Your task to perform on an android device: open app "Cash App" Image 0: 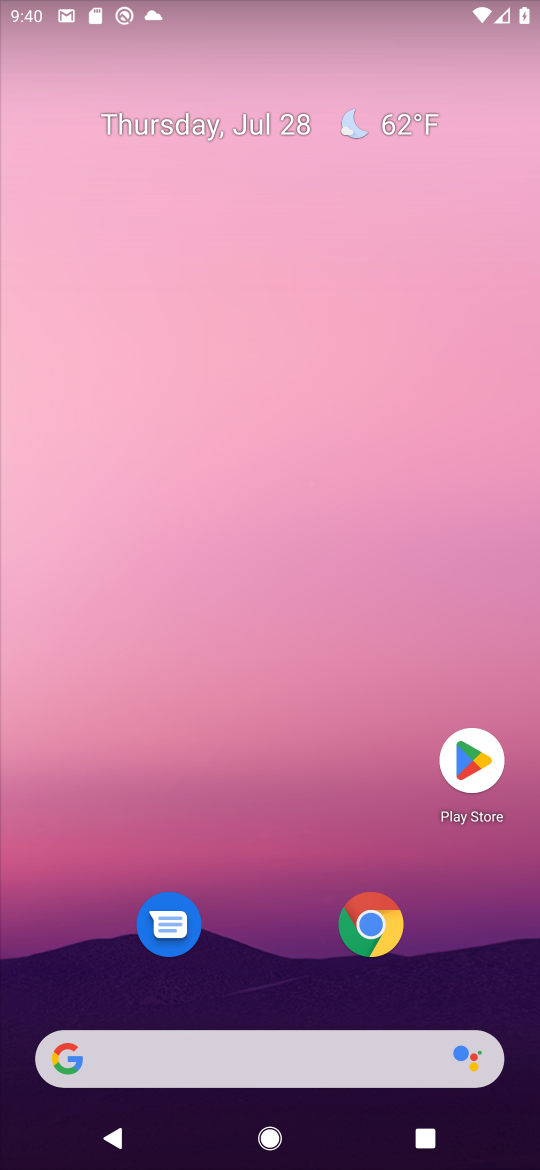
Step 0: press home button
Your task to perform on an android device: open app "Cash App" Image 1: 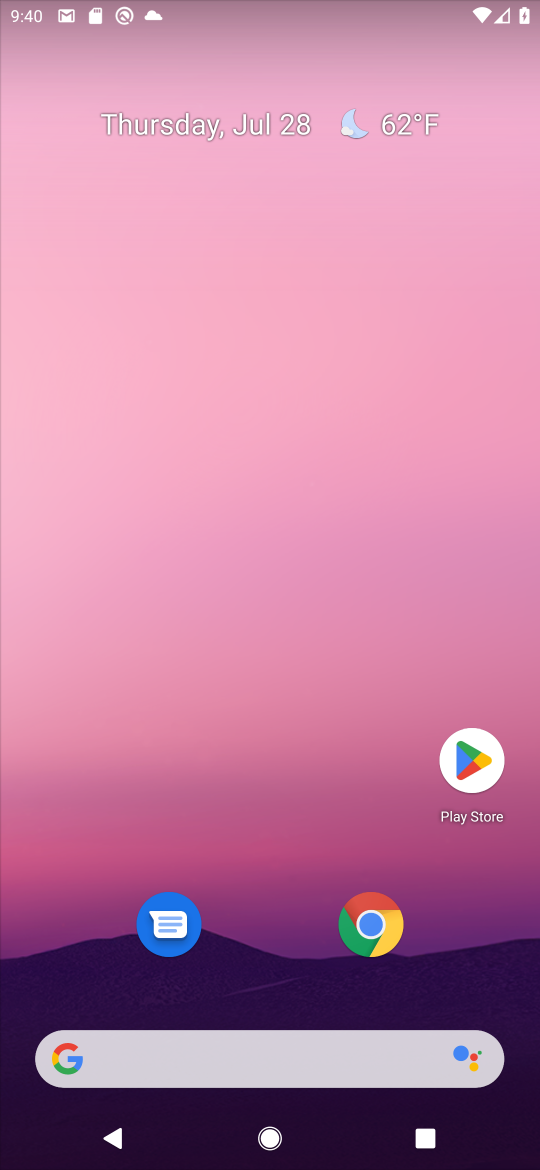
Step 1: click (470, 765)
Your task to perform on an android device: open app "Cash App" Image 2: 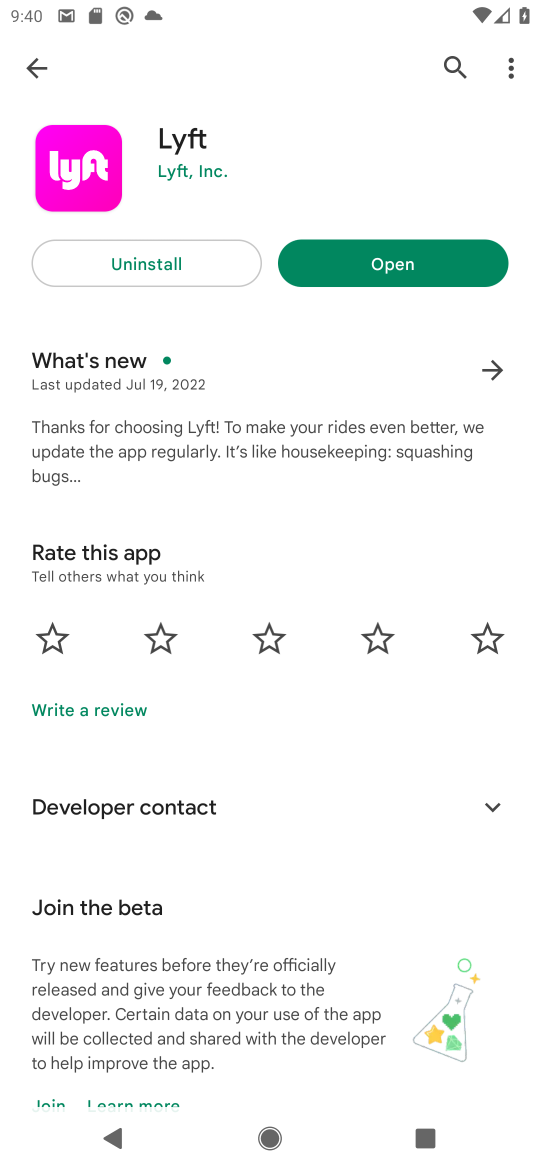
Step 2: click (41, 68)
Your task to perform on an android device: open app "Cash App" Image 3: 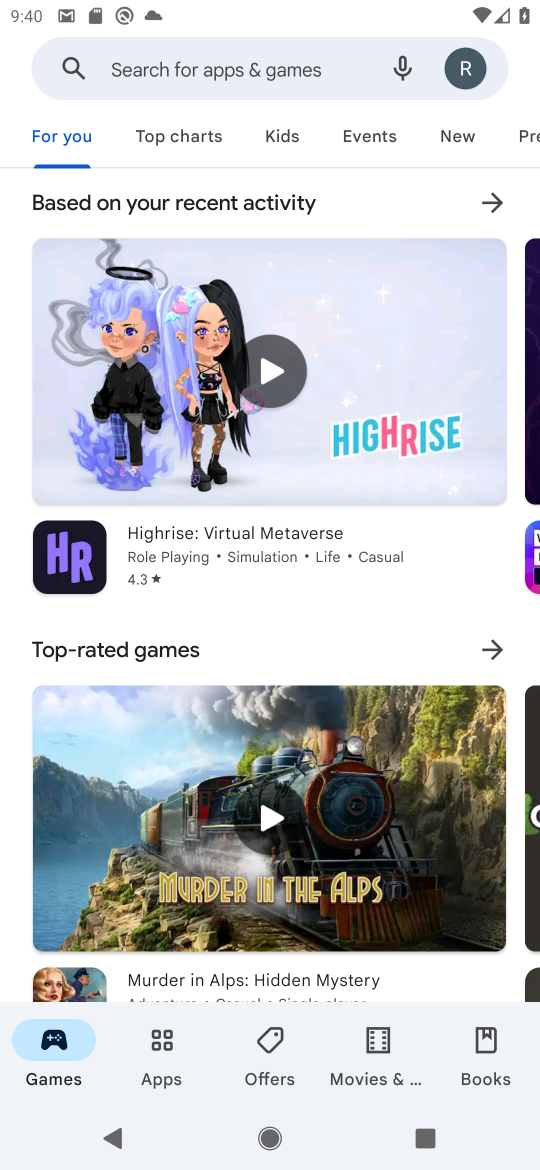
Step 3: click (217, 67)
Your task to perform on an android device: open app "Cash App" Image 4: 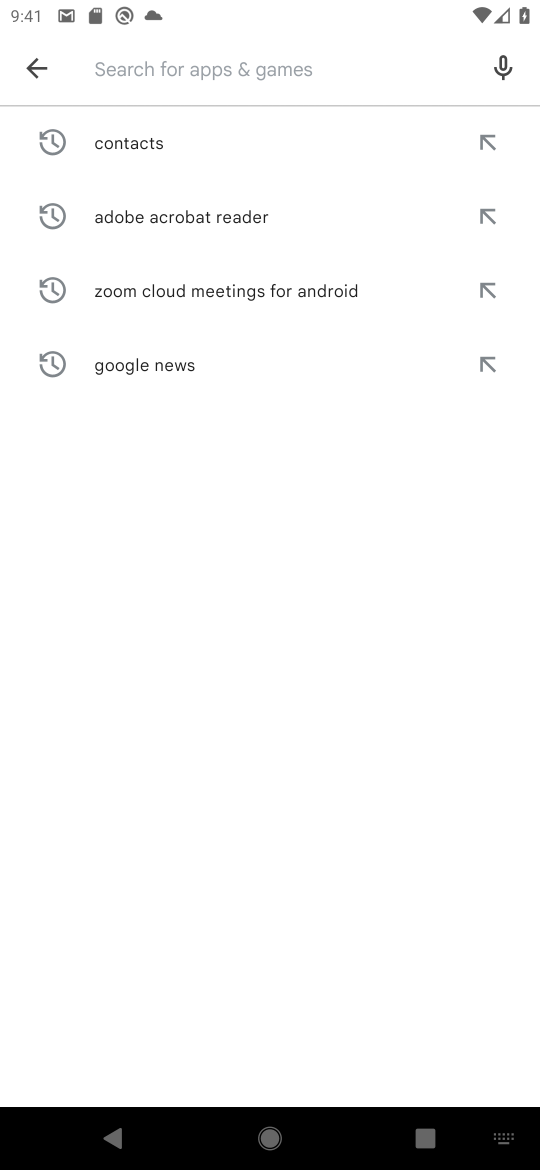
Step 4: type "Cash App"
Your task to perform on an android device: open app "Cash App" Image 5: 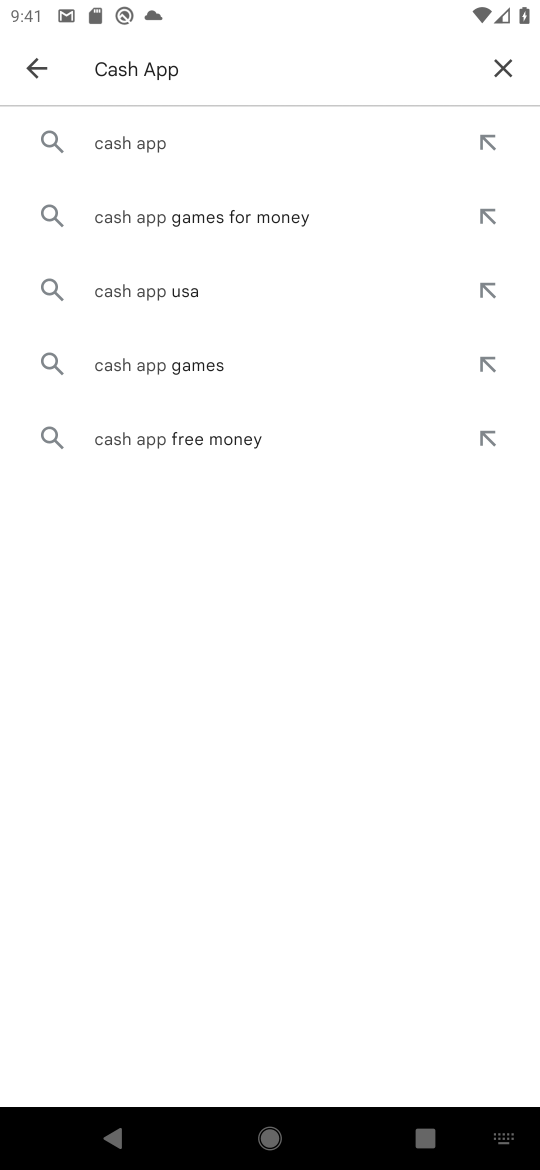
Step 5: click (140, 144)
Your task to perform on an android device: open app "Cash App" Image 6: 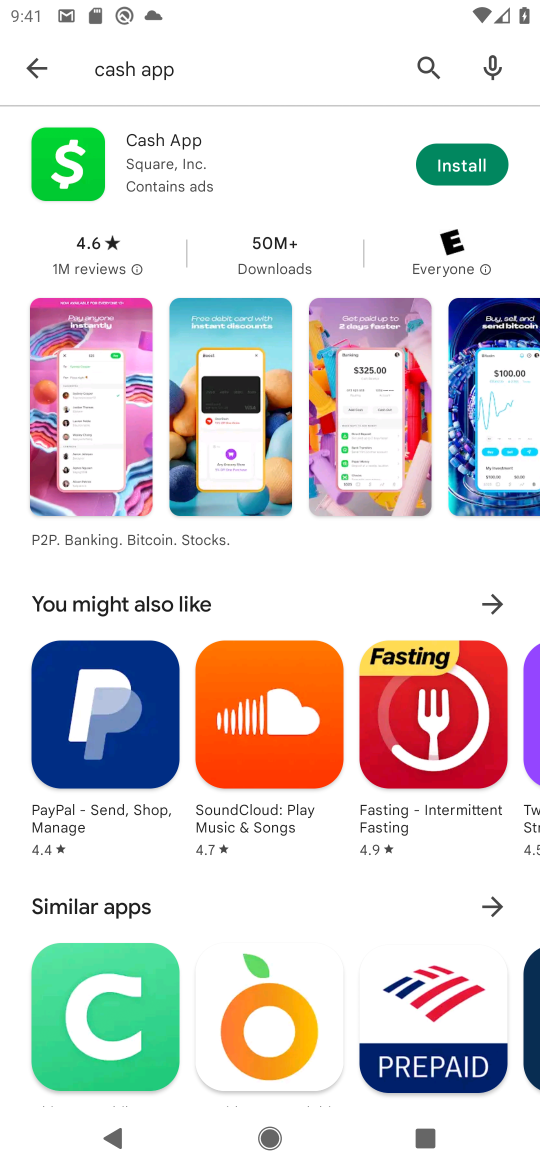
Step 6: task complete